Your task to perform on an android device: When is my next appointment? Image 0: 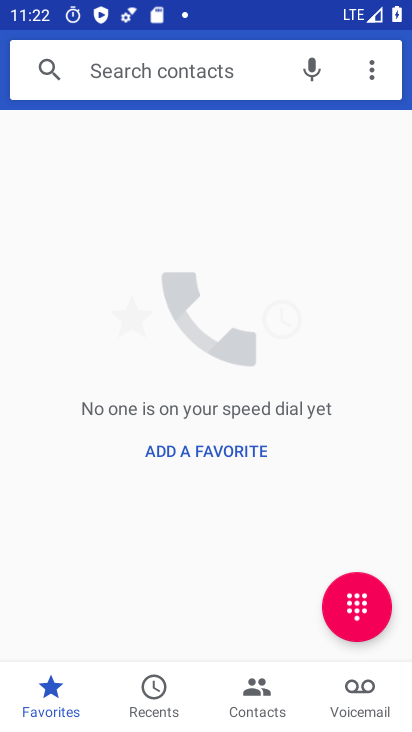
Step 0: drag from (249, 578) to (324, 256)
Your task to perform on an android device: When is my next appointment? Image 1: 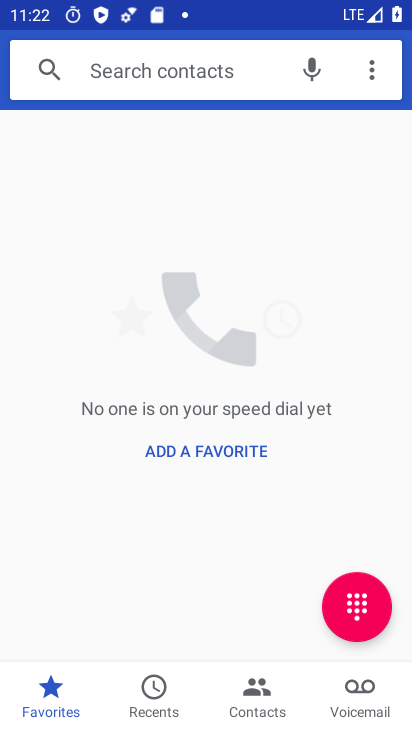
Step 1: press home button
Your task to perform on an android device: When is my next appointment? Image 2: 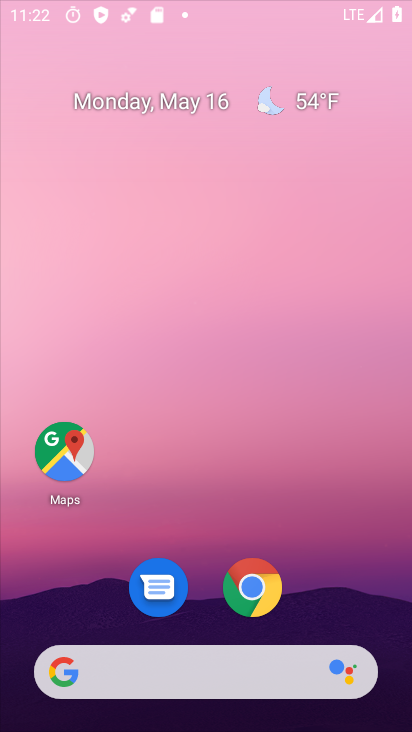
Step 2: drag from (209, 587) to (178, 34)
Your task to perform on an android device: When is my next appointment? Image 3: 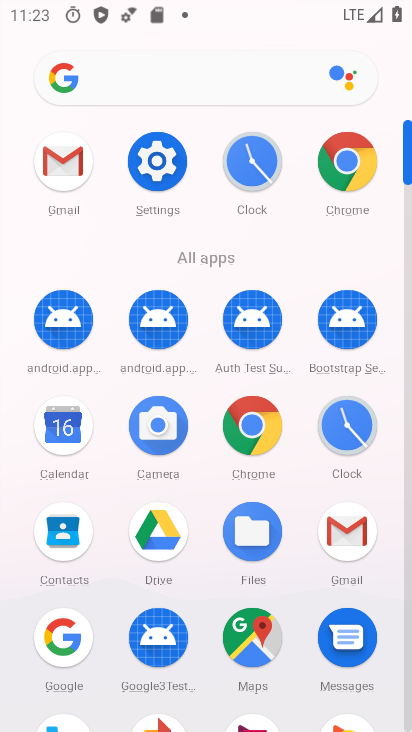
Step 3: click (69, 427)
Your task to perform on an android device: When is my next appointment? Image 4: 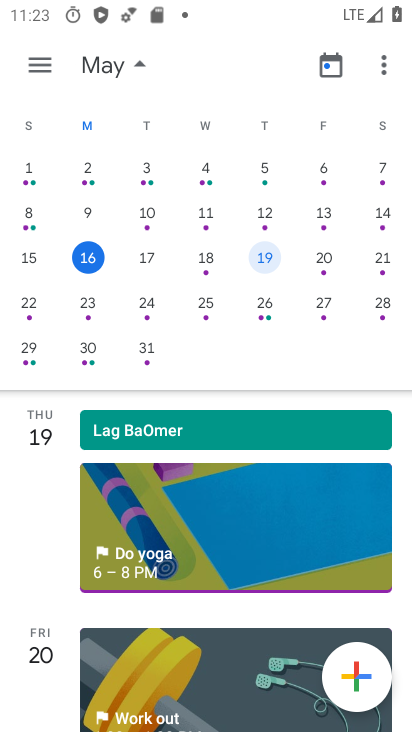
Step 4: click (329, 254)
Your task to perform on an android device: When is my next appointment? Image 5: 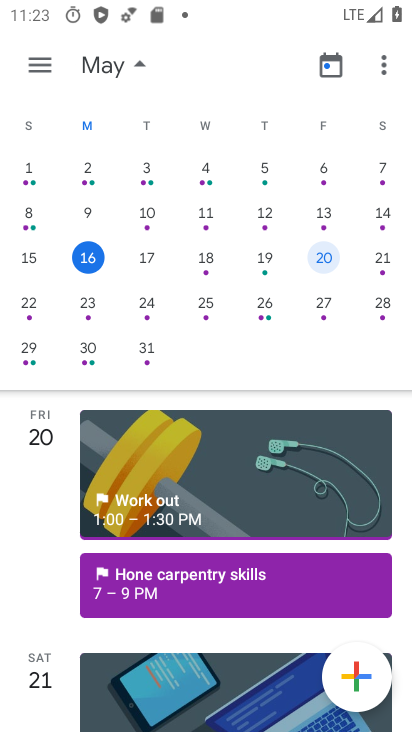
Step 5: click (267, 255)
Your task to perform on an android device: When is my next appointment? Image 6: 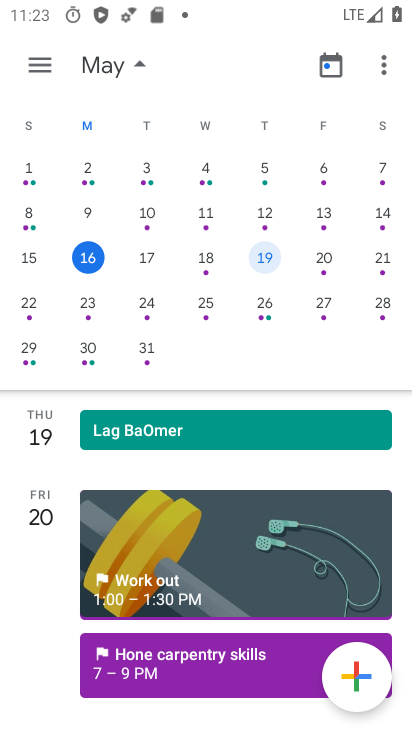
Step 6: task complete